Your task to perform on an android device: What's on my calendar tomorrow? Image 0: 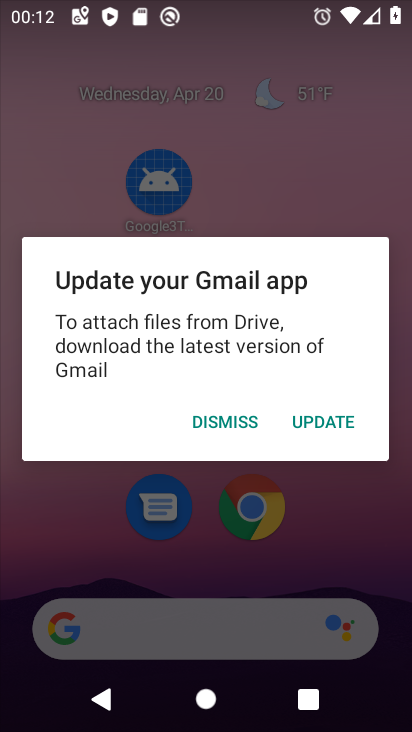
Step 0: press home button
Your task to perform on an android device: What's on my calendar tomorrow? Image 1: 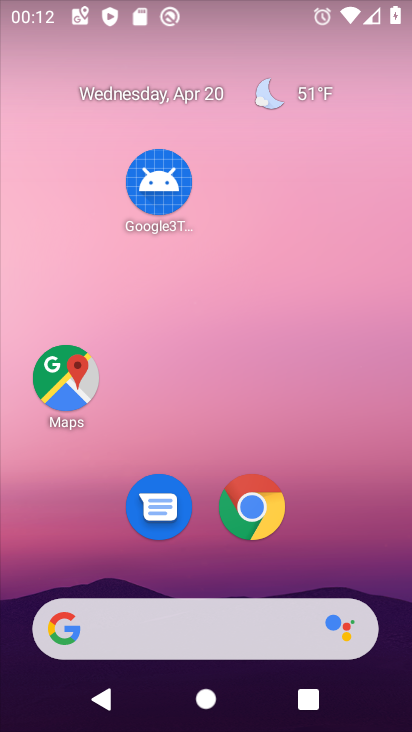
Step 1: drag from (202, 398) to (188, 2)
Your task to perform on an android device: What's on my calendar tomorrow? Image 2: 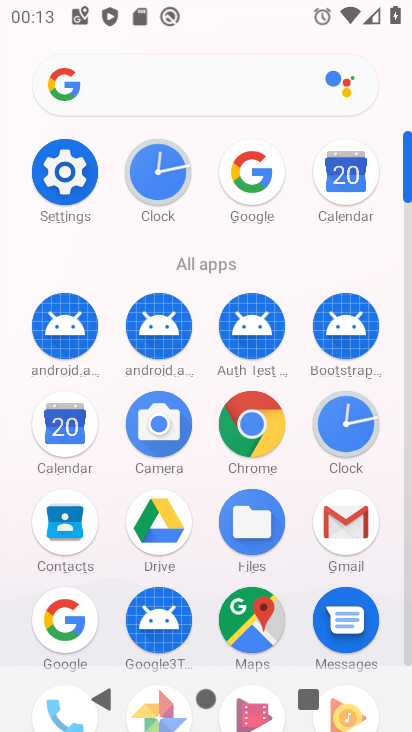
Step 2: click (67, 425)
Your task to perform on an android device: What's on my calendar tomorrow? Image 3: 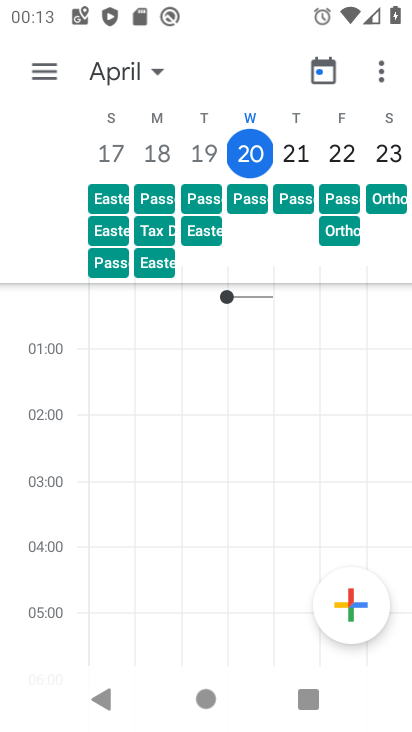
Step 3: task complete